Your task to perform on an android device: open wifi settings Image 0: 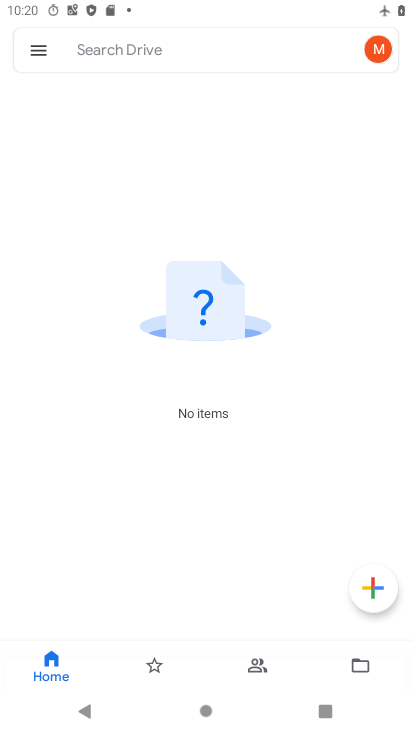
Step 0: press home button
Your task to perform on an android device: open wifi settings Image 1: 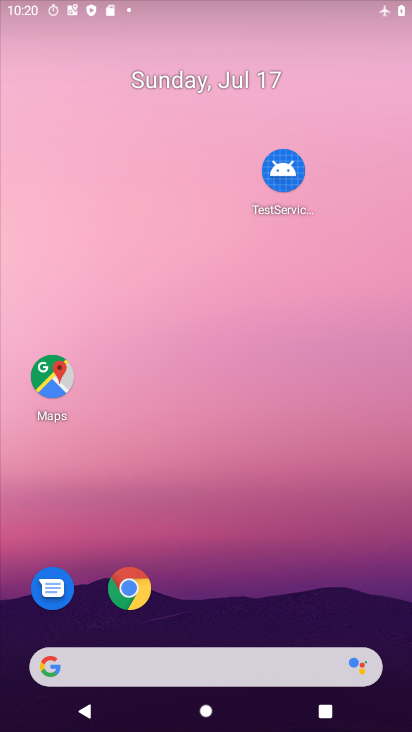
Step 1: drag from (228, 688) to (122, 18)
Your task to perform on an android device: open wifi settings Image 2: 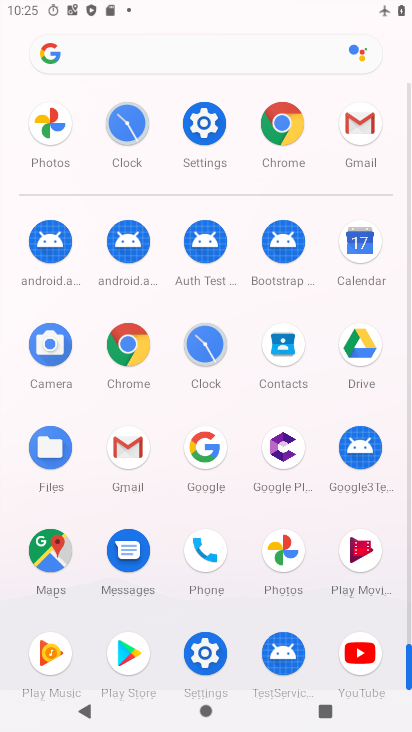
Step 2: click (214, 162)
Your task to perform on an android device: open wifi settings Image 3: 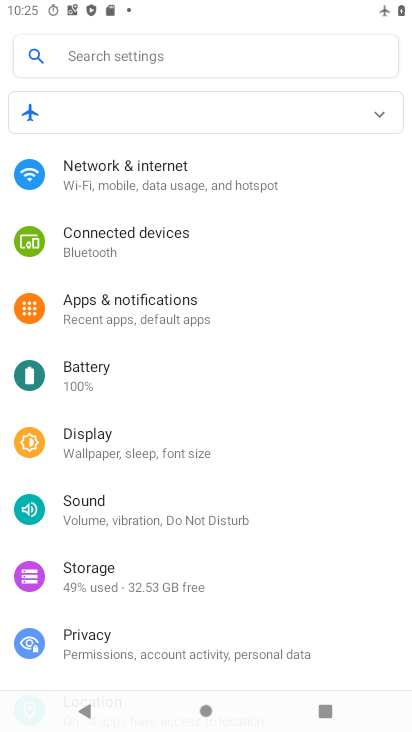
Step 3: click (163, 183)
Your task to perform on an android device: open wifi settings Image 4: 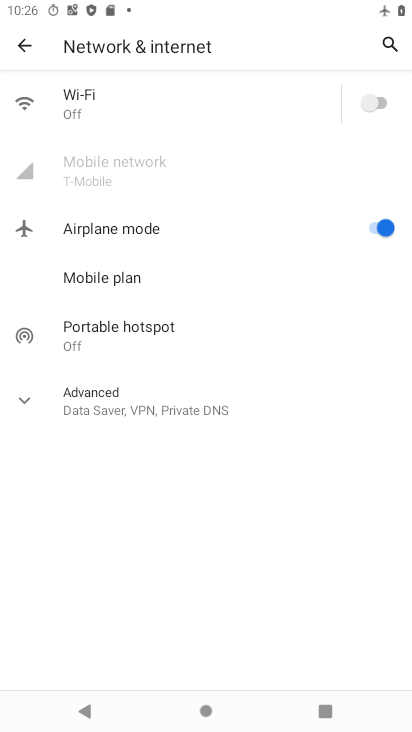
Step 4: click (164, 102)
Your task to perform on an android device: open wifi settings Image 5: 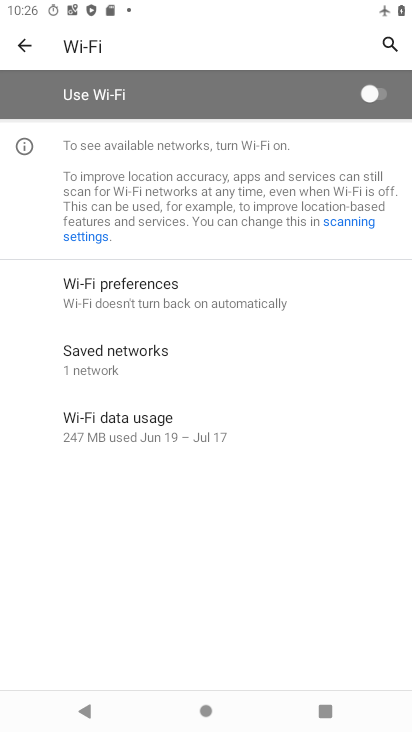
Step 5: task complete